Your task to perform on an android device: Open calendar and show me the third week of next month Image 0: 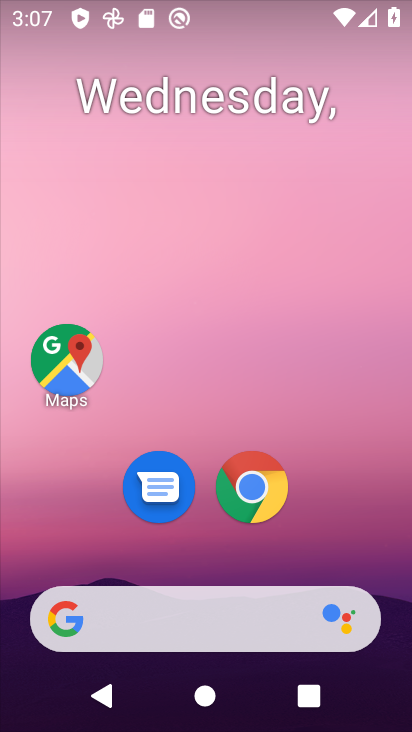
Step 0: drag from (343, 516) to (356, 208)
Your task to perform on an android device: Open calendar and show me the third week of next month Image 1: 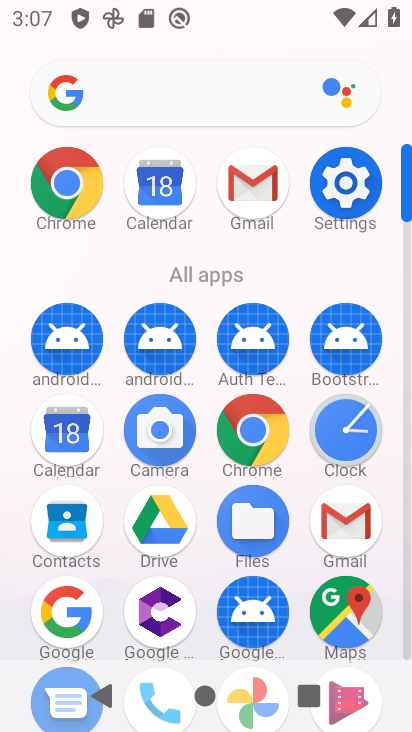
Step 1: drag from (297, 602) to (306, 356)
Your task to perform on an android device: Open calendar and show me the third week of next month Image 2: 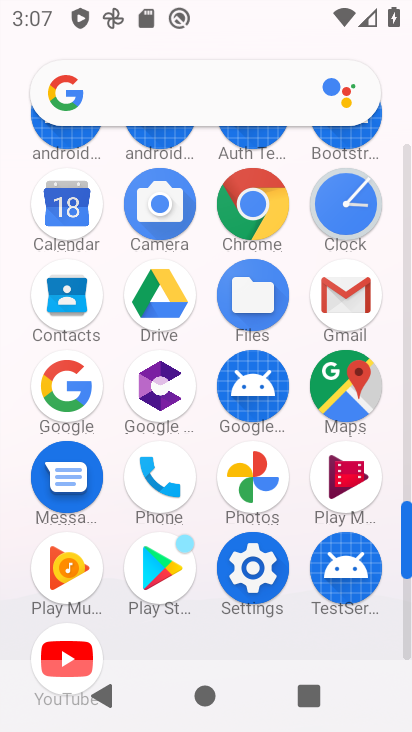
Step 2: click (68, 226)
Your task to perform on an android device: Open calendar and show me the third week of next month Image 3: 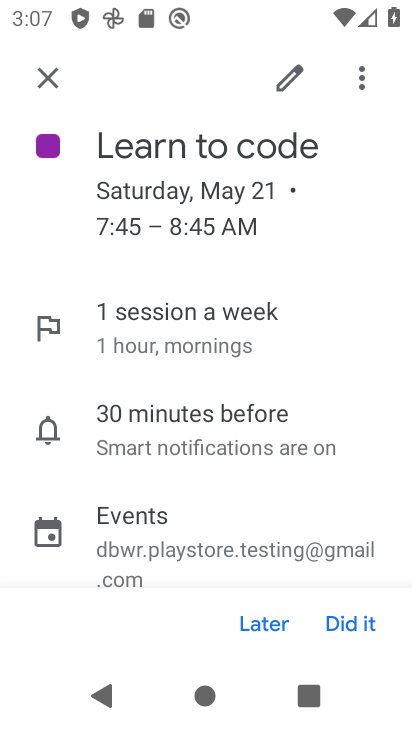
Step 3: click (33, 67)
Your task to perform on an android device: Open calendar and show me the third week of next month Image 4: 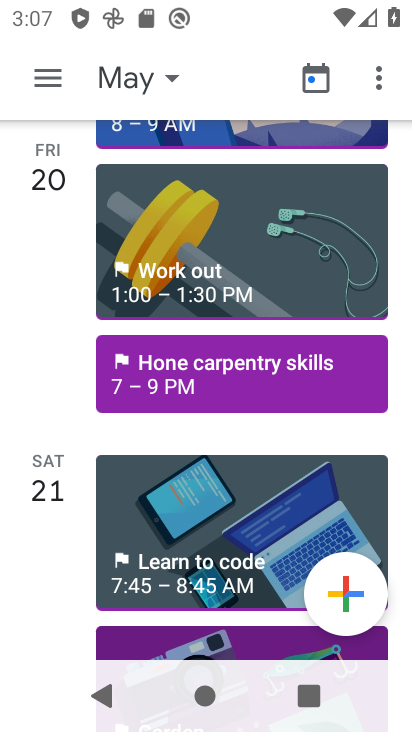
Step 4: click (172, 66)
Your task to perform on an android device: Open calendar and show me the third week of next month Image 5: 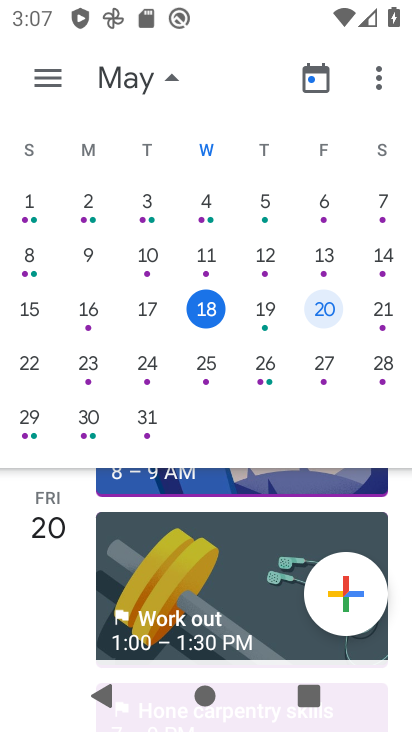
Step 5: drag from (385, 173) to (17, 169)
Your task to perform on an android device: Open calendar and show me the third week of next month Image 6: 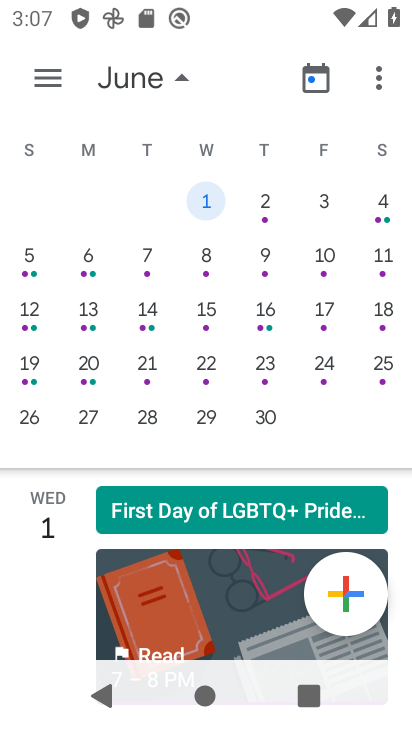
Step 6: click (95, 311)
Your task to perform on an android device: Open calendar and show me the third week of next month Image 7: 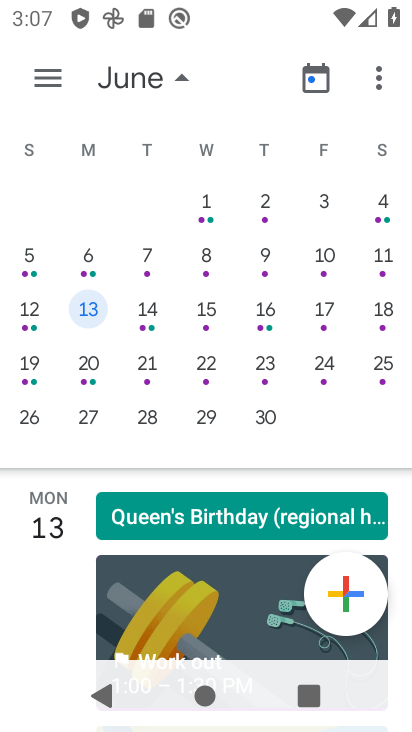
Step 7: task complete